Your task to perform on an android device: turn on airplane mode Image 0: 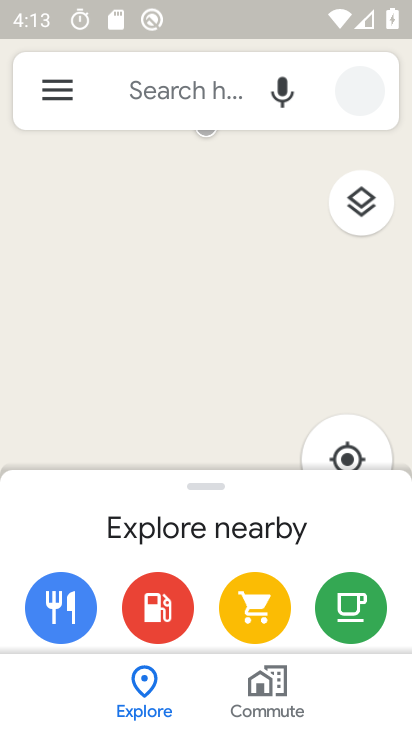
Step 0: press home button
Your task to perform on an android device: turn on airplane mode Image 1: 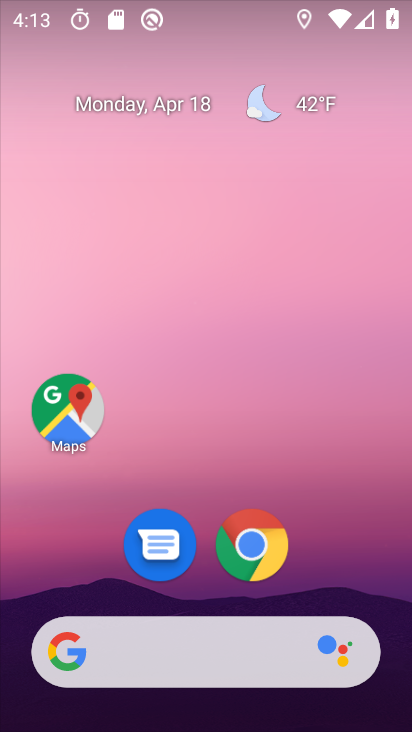
Step 1: drag from (319, 524) to (320, 108)
Your task to perform on an android device: turn on airplane mode Image 2: 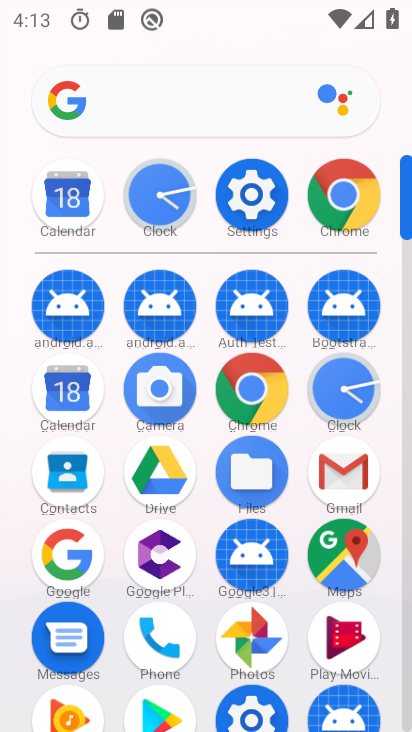
Step 2: drag from (312, 272) to (299, 80)
Your task to perform on an android device: turn on airplane mode Image 3: 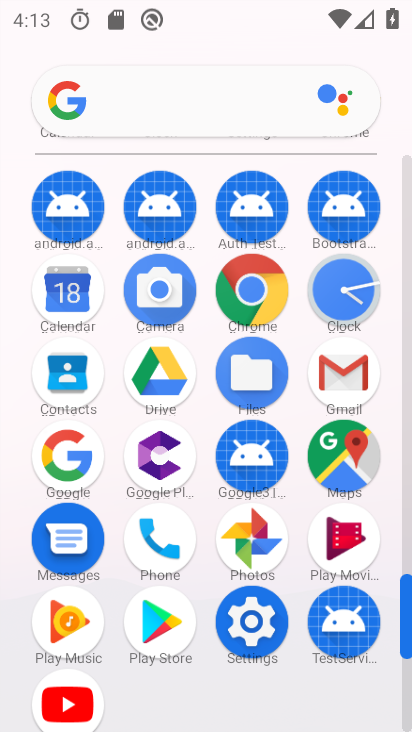
Step 3: click (258, 635)
Your task to perform on an android device: turn on airplane mode Image 4: 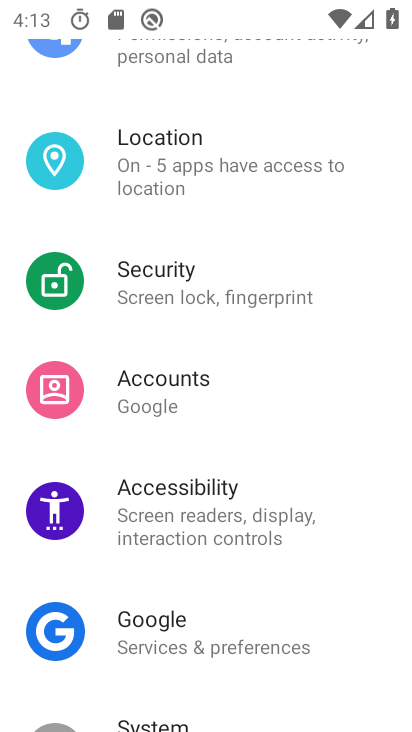
Step 4: drag from (348, 282) to (350, 511)
Your task to perform on an android device: turn on airplane mode Image 5: 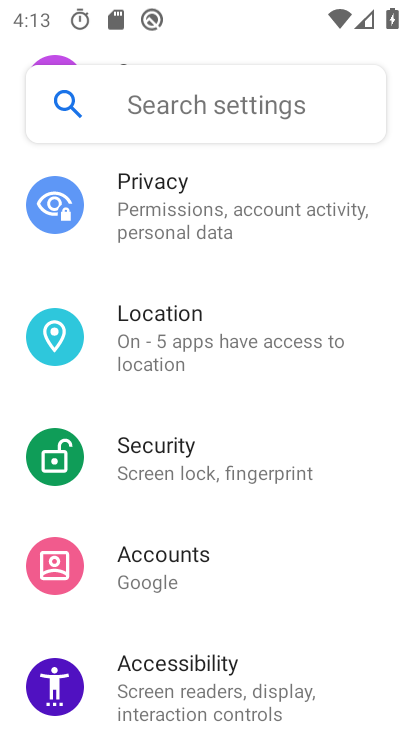
Step 5: drag from (377, 434) to (375, 585)
Your task to perform on an android device: turn on airplane mode Image 6: 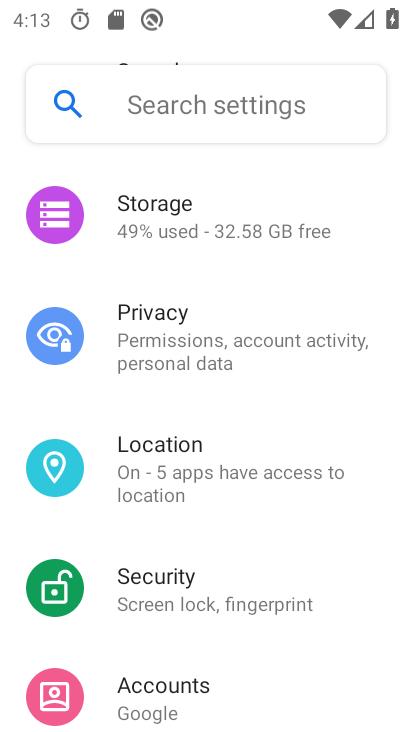
Step 6: drag from (379, 420) to (370, 511)
Your task to perform on an android device: turn on airplane mode Image 7: 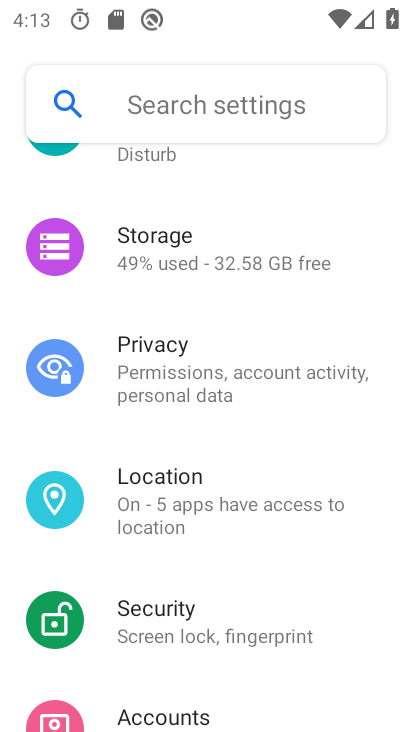
Step 7: drag from (370, 255) to (356, 530)
Your task to perform on an android device: turn on airplane mode Image 8: 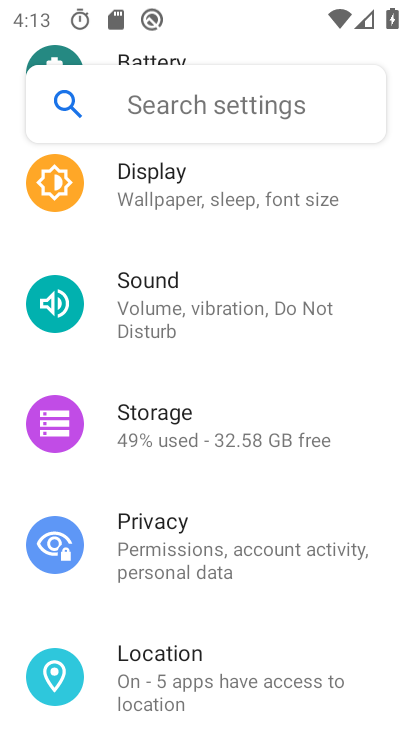
Step 8: drag from (359, 255) to (362, 612)
Your task to perform on an android device: turn on airplane mode Image 9: 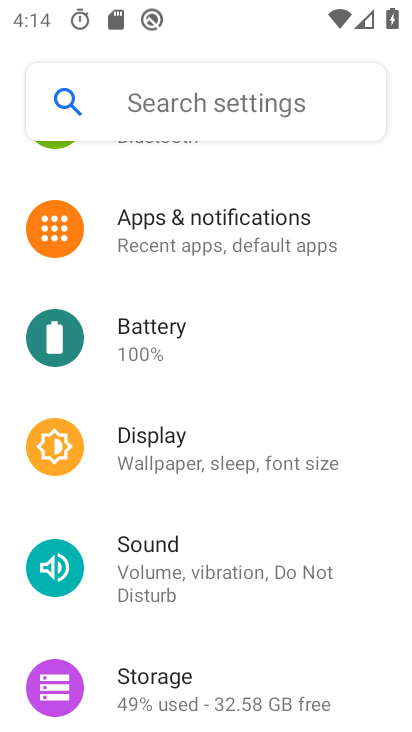
Step 9: drag from (369, 202) to (368, 529)
Your task to perform on an android device: turn on airplane mode Image 10: 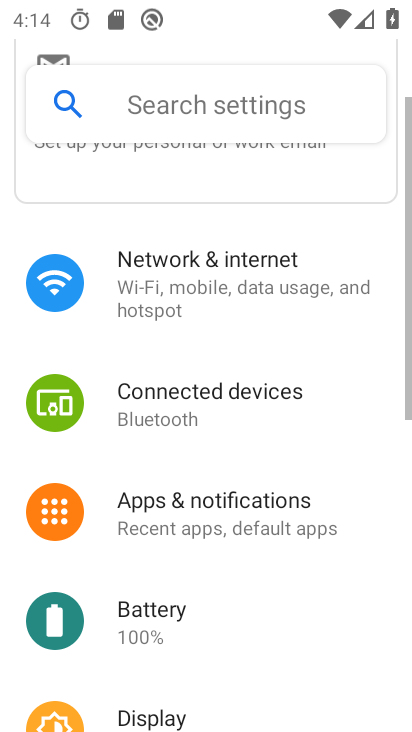
Step 10: click (260, 253)
Your task to perform on an android device: turn on airplane mode Image 11: 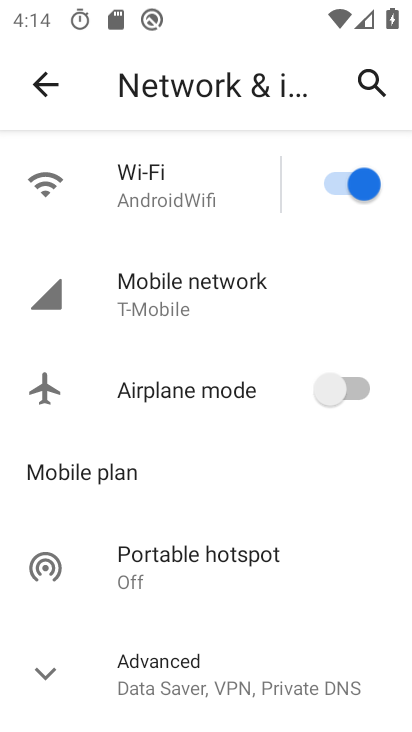
Step 11: click (346, 384)
Your task to perform on an android device: turn on airplane mode Image 12: 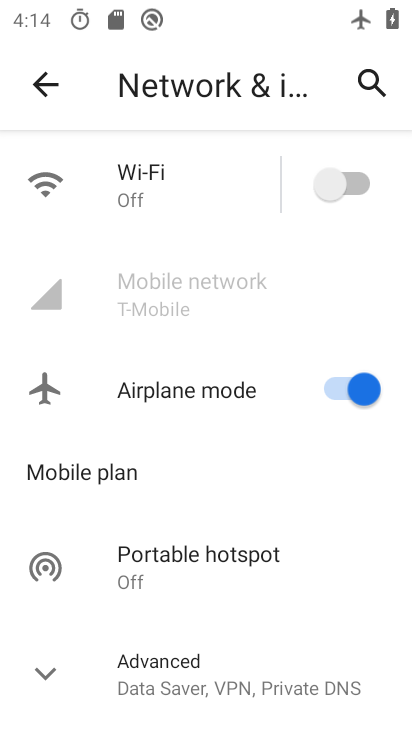
Step 12: task complete